Your task to perform on an android device: Toggle the flashlight Image 0: 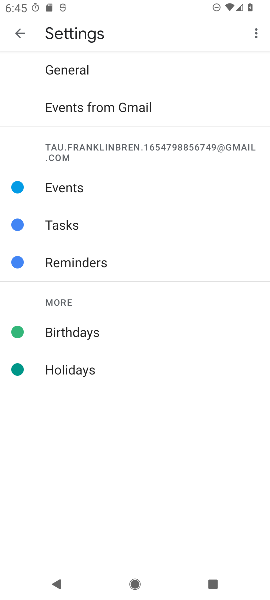
Step 0: press home button
Your task to perform on an android device: Toggle the flashlight Image 1: 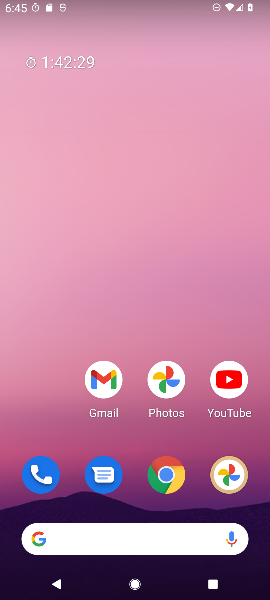
Step 1: drag from (142, 47) to (160, 338)
Your task to perform on an android device: Toggle the flashlight Image 2: 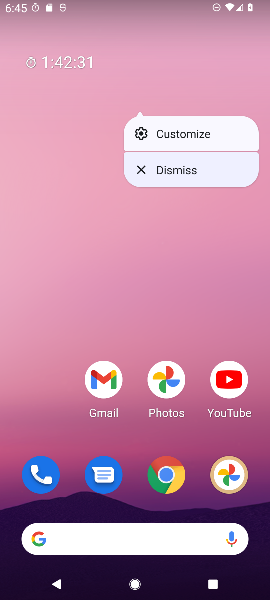
Step 2: click (139, 263)
Your task to perform on an android device: Toggle the flashlight Image 3: 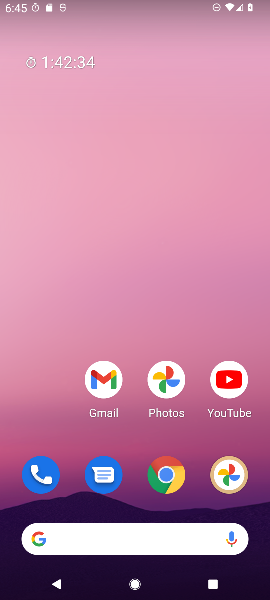
Step 3: drag from (128, 0) to (127, 347)
Your task to perform on an android device: Toggle the flashlight Image 4: 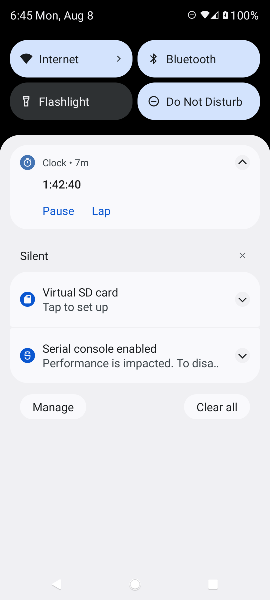
Step 4: drag from (134, 31) to (139, 277)
Your task to perform on an android device: Toggle the flashlight Image 5: 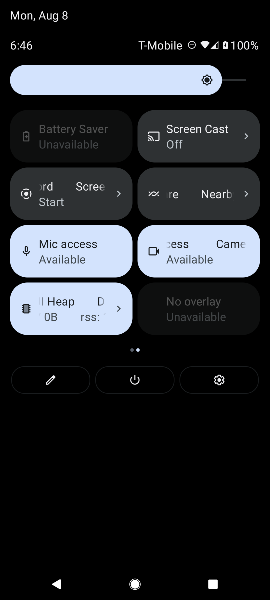
Step 5: drag from (161, 340) to (256, 253)
Your task to perform on an android device: Toggle the flashlight Image 6: 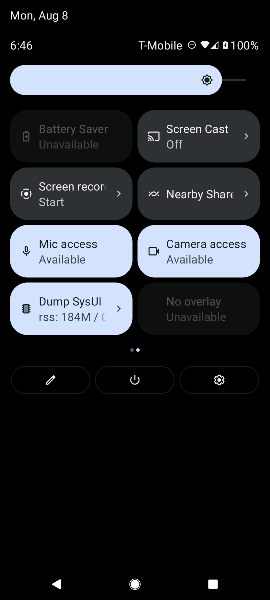
Step 6: click (46, 381)
Your task to perform on an android device: Toggle the flashlight Image 7: 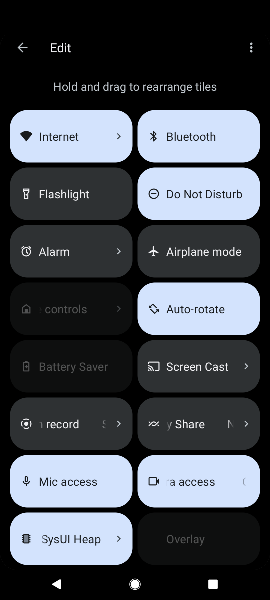
Step 7: click (84, 193)
Your task to perform on an android device: Toggle the flashlight Image 8: 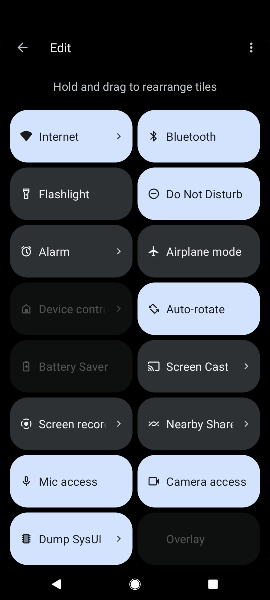
Step 8: task complete